Your task to perform on an android device: turn off data saver in the chrome app Image 0: 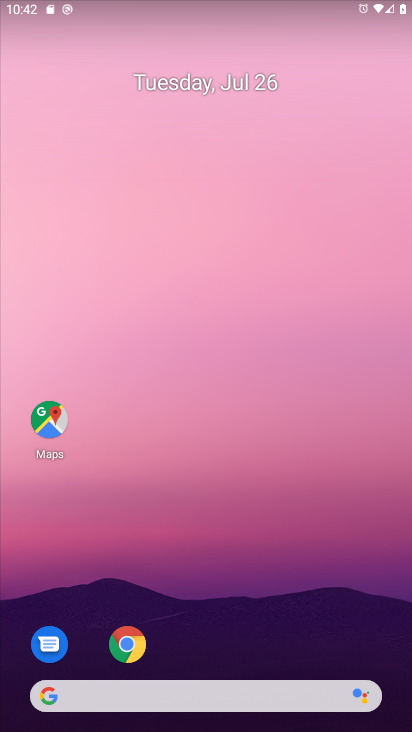
Step 0: click (124, 641)
Your task to perform on an android device: turn off data saver in the chrome app Image 1: 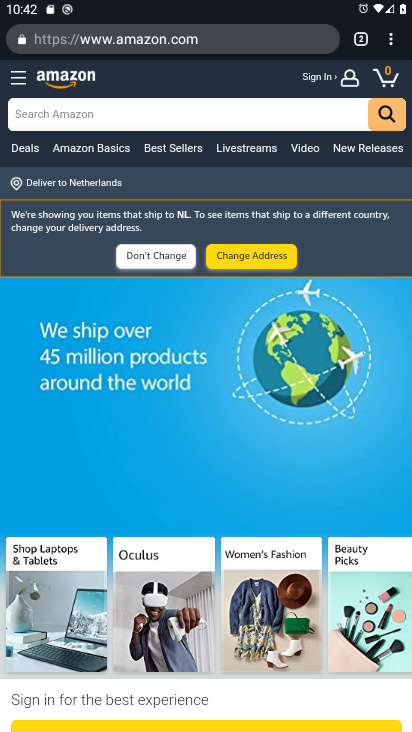
Step 1: click (394, 53)
Your task to perform on an android device: turn off data saver in the chrome app Image 2: 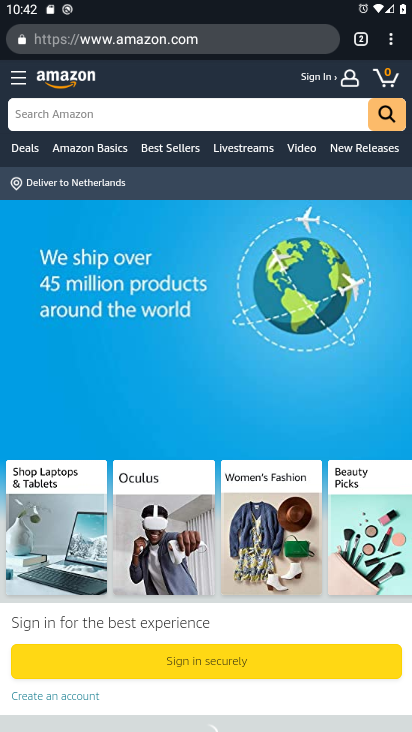
Step 2: click (394, 35)
Your task to perform on an android device: turn off data saver in the chrome app Image 3: 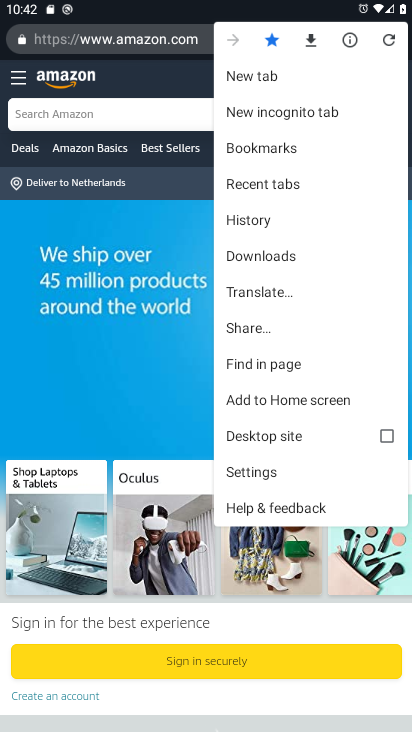
Step 3: click (257, 471)
Your task to perform on an android device: turn off data saver in the chrome app Image 4: 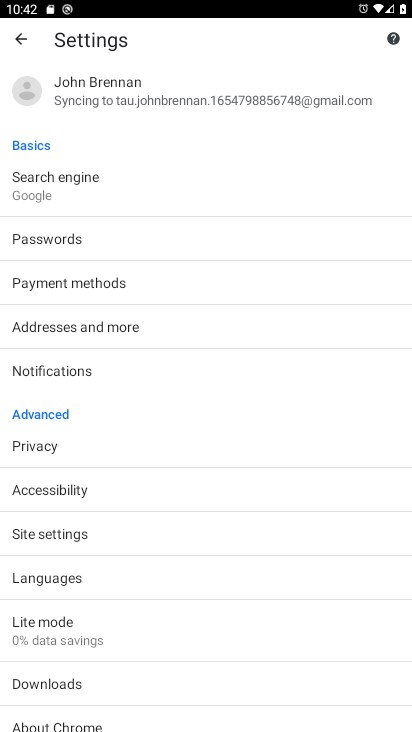
Step 4: click (71, 642)
Your task to perform on an android device: turn off data saver in the chrome app Image 5: 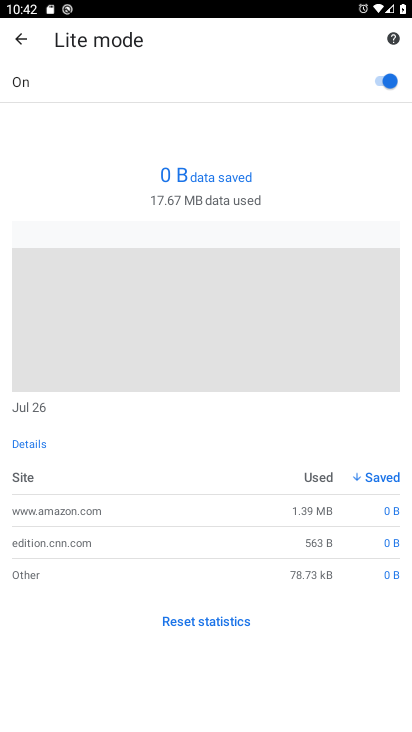
Step 5: click (365, 80)
Your task to perform on an android device: turn off data saver in the chrome app Image 6: 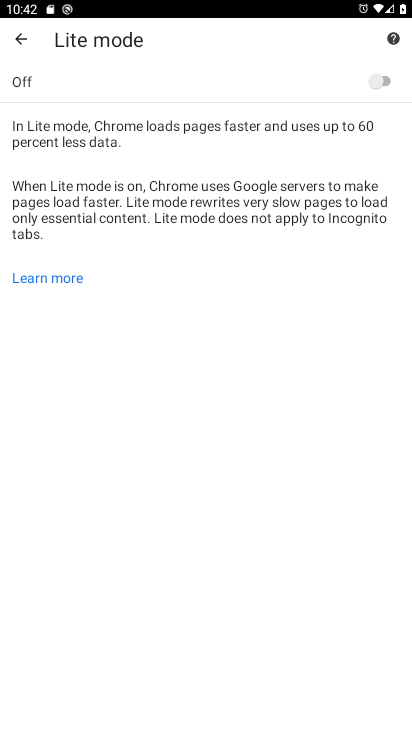
Step 6: task complete